Your task to perform on an android device: empty trash in google photos Image 0: 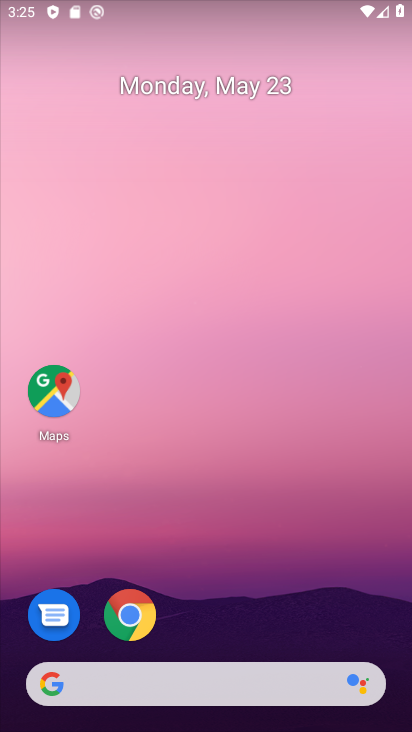
Step 0: drag from (373, 624) to (356, 146)
Your task to perform on an android device: empty trash in google photos Image 1: 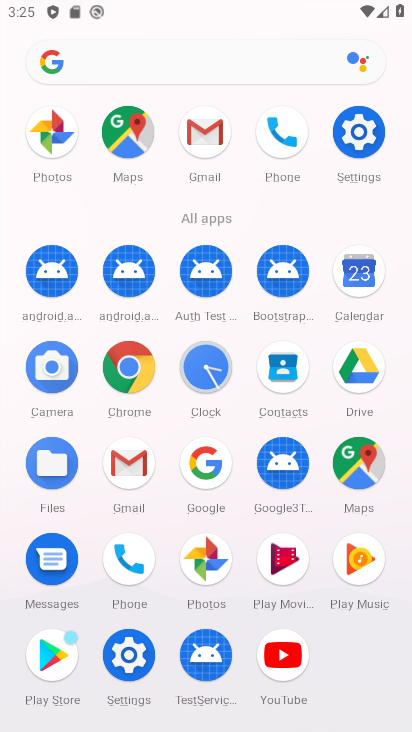
Step 1: click (205, 572)
Your task to perform on an android device: empty trash in google photos Image 2: 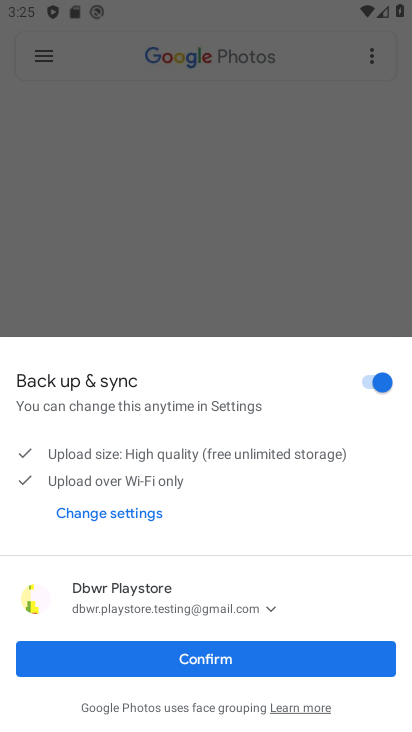
Step 2: click (246, 661)
Your task to perform on an android device: empty trash in google photos Image 3: 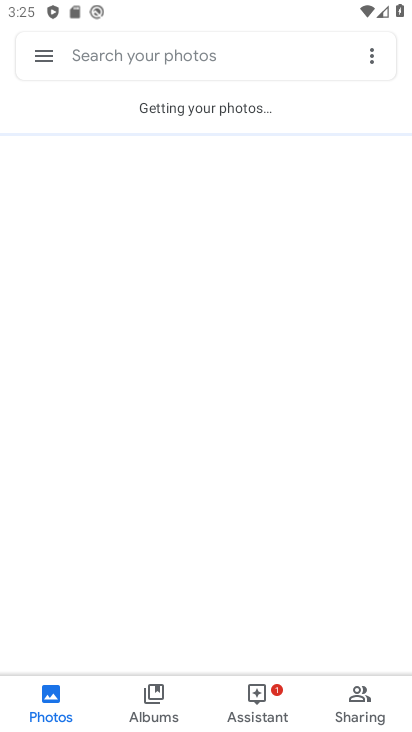
Step 3: click (41, 57)
Your task to perform on an android device: empty trash in google photos Image 4: 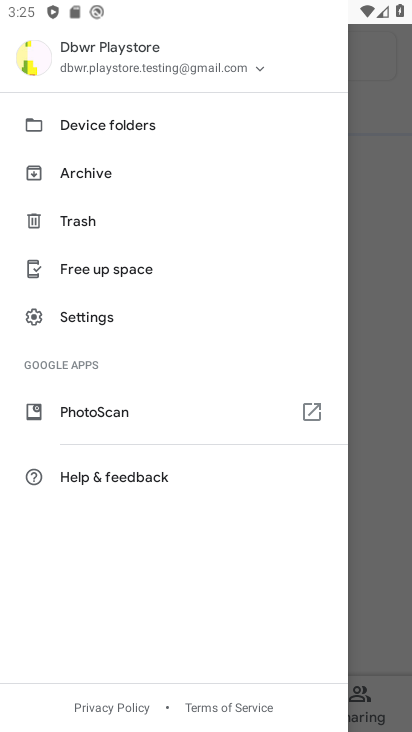
Step 4: click (114, 325)
Your task to perform on an android device: empty trash in google photos Image 5: 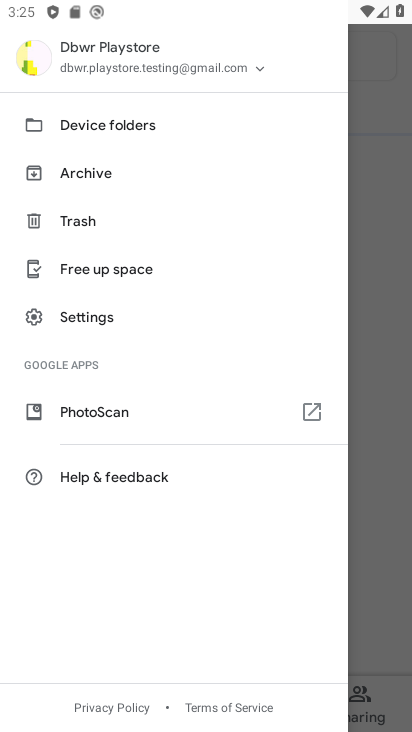
Step 5: click (99, 226)
Your task to perform on an android device: empty trash in google photos Image 6: 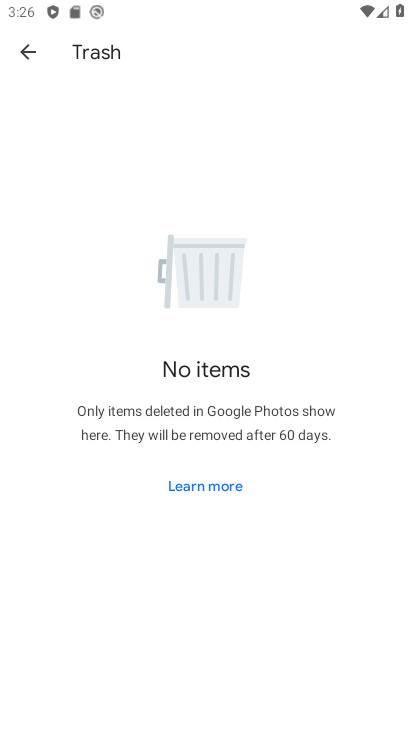
Step 6: task complete